Your task to perform on an android device: Go to location settings Image 0: 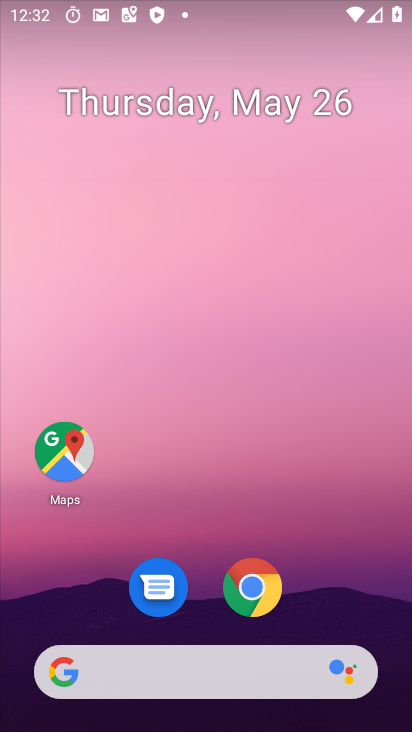
Step 0: press home button
Your task to perform on an android device: Go to location settings Image 1: 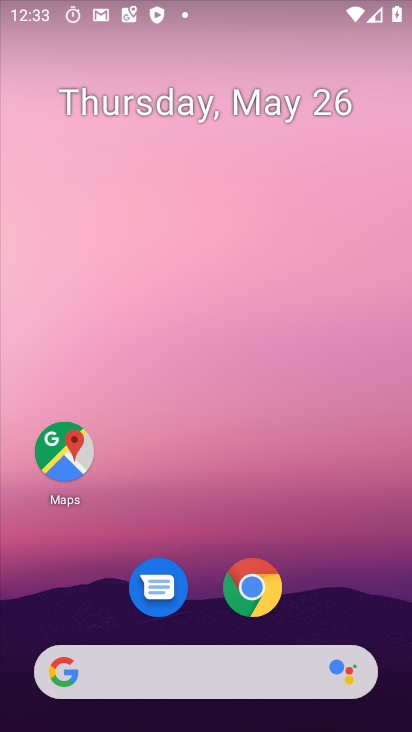
Step 1: drag from (207, 656) to (230, 172)
Your task to perform on an android device: Go to location settings Image 2: 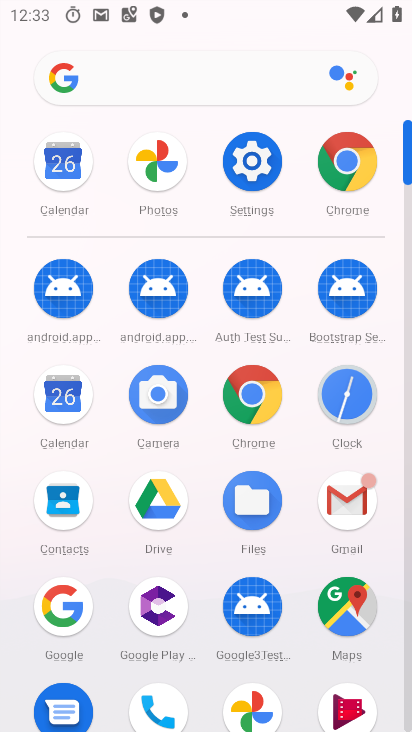
Step 2: click (276, 180)
Your task to perform on an android device: Go to location settings Image 3: 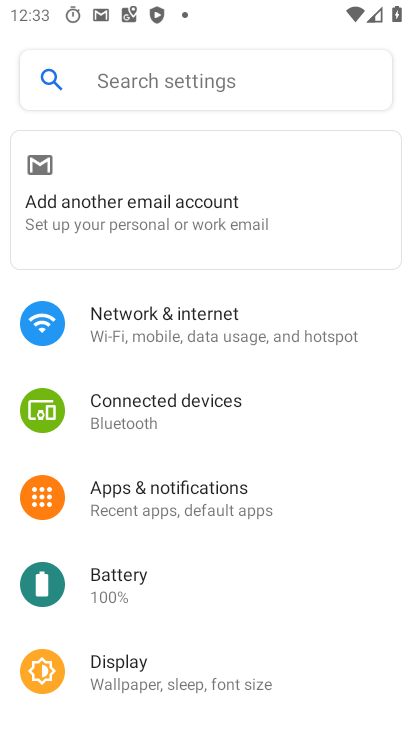
Step 3: click (237, 90)
Your task to perform on an android device: Go to location settings Image 4: 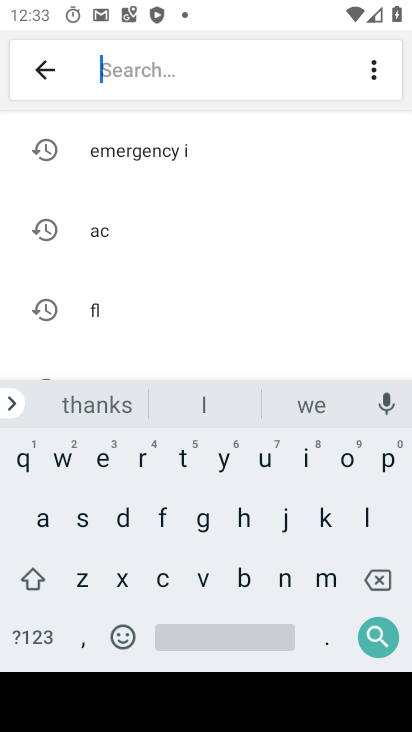
Step 4: click (359, 511)
Your task to perform on an android device: Go to location settings Image 5: 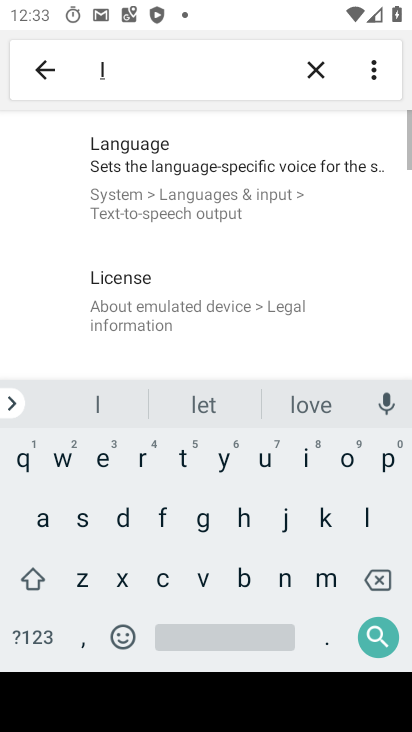
Step 5: click (344, 465)
Your task to perform on an android device: Go to location settings Image 6: 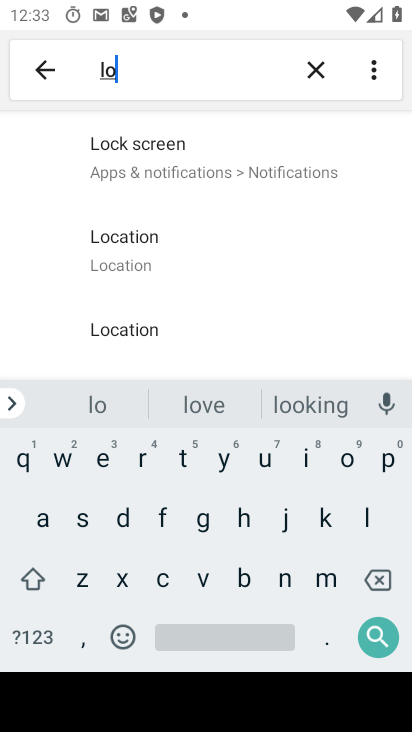
Step 6: click (237, 272)
Your task to perform on an android device: Go to location settings Image 7: 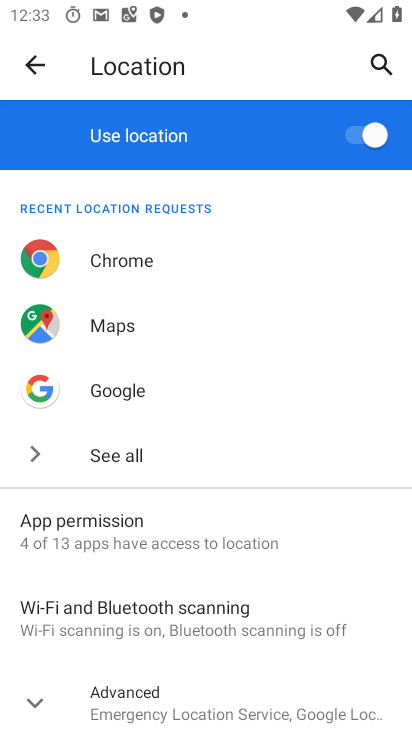
Step 7: task complete